Your task to perform on an android device: open app "NewsBreak: Local News & Alerts" (install if not already installed) Image 0: 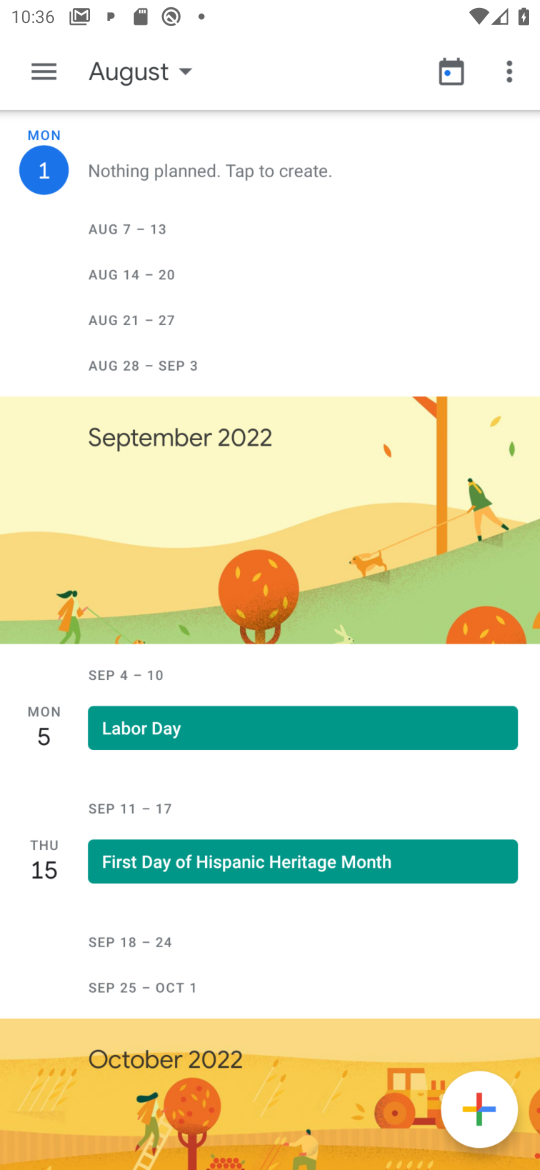
Step 0: press home button
Your task to perform on an android device: open app "NewsBreak: Local News & Alerts" (install if not already installed) Image 1: 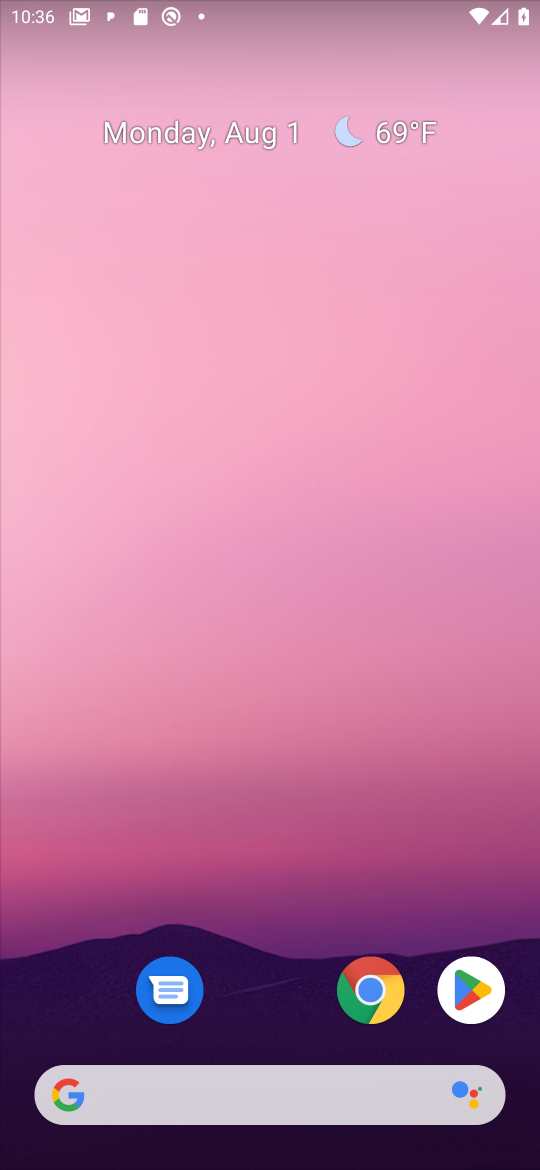
Step 1: click (455, 982)
Your task to perform on an android device: open app "NewsBreak: Local News & Alerts" (install if not already installed) Image 2: 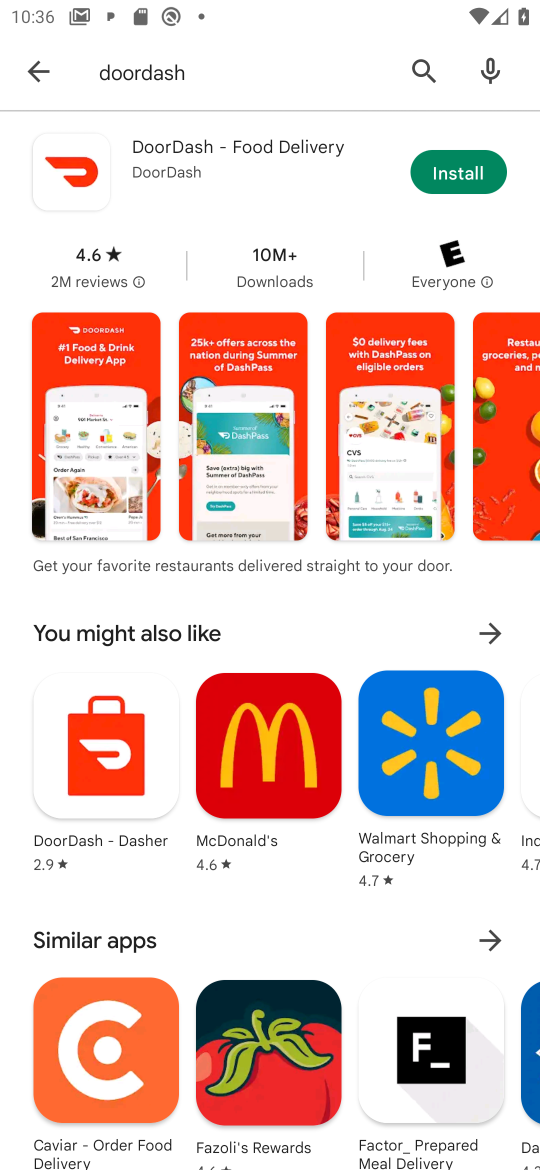
Step 2: click (439, 71)
Your task to perform on an android device: open app "NewsBreak: Local News & Alerts" (install if not already installed) Image 3: 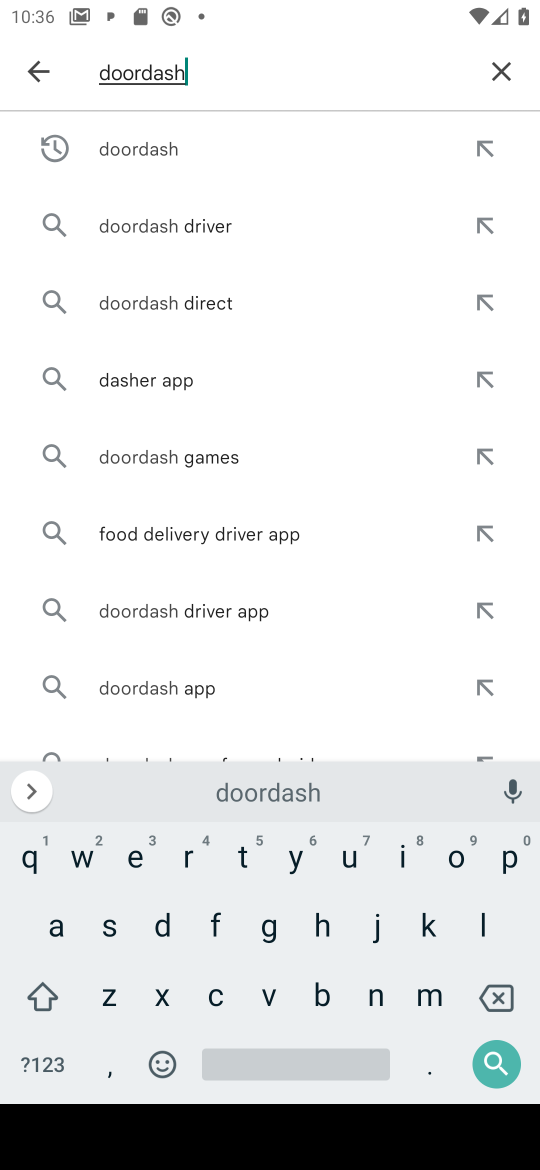
Step 3: click (500, 67)
Your task to perform on an android device: open app "NewsBreak: Local News & Alerts" (install if not already installed) Image 4: 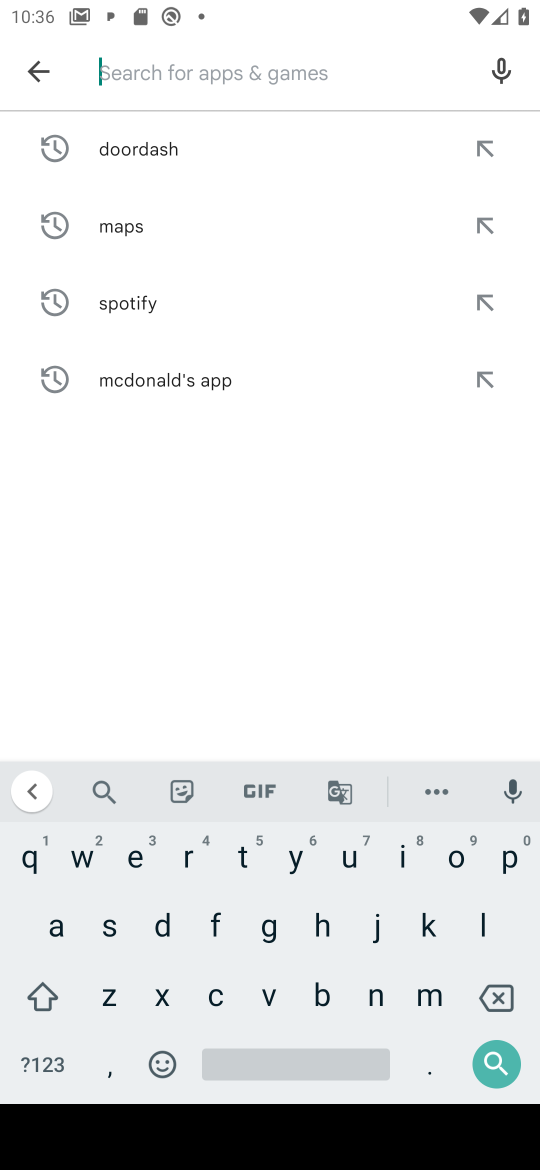
Step 4: click (375, 983)
Your task to perform on an android device: open app "NewsBreak: Local News & Alerts" (install if not already installed) Image 5: 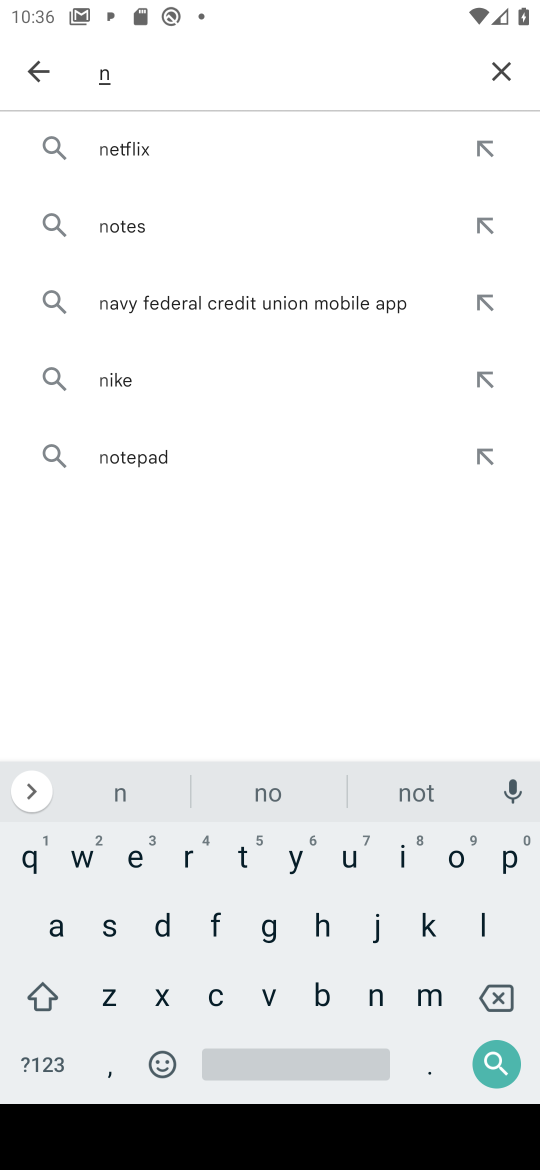
Step 5: click (129, 851)
Your task to perform on an android device: open app "NewsBreak: Local News & Alerts" (install if not already installed) Image 6: 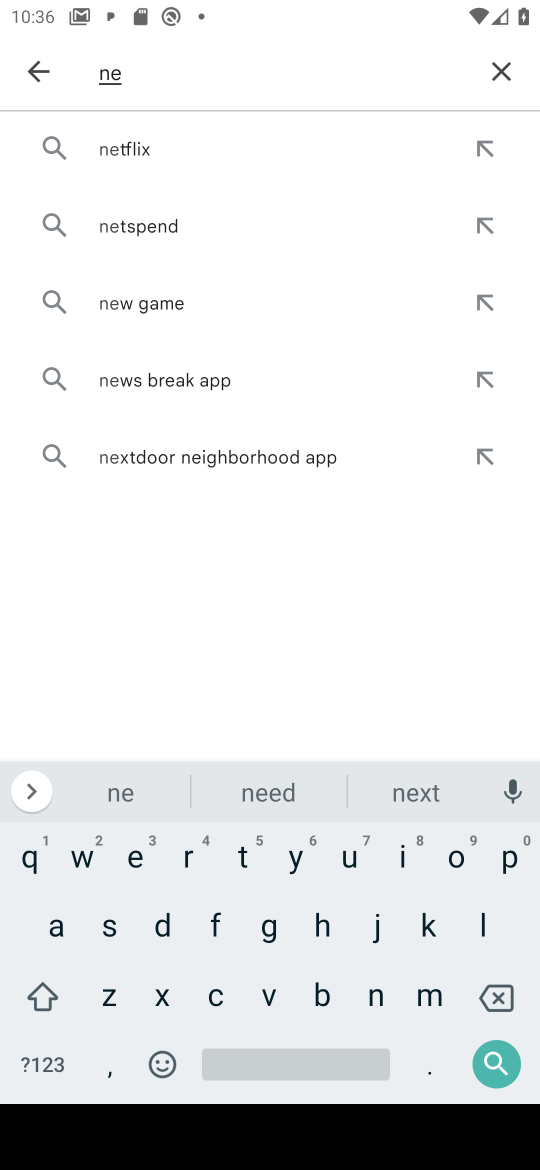
Step 6: click (80, 852)
Your task to perform on an android device: open app "NewsBreak: Local News & Alerts" (install if not already installed) Image 7: 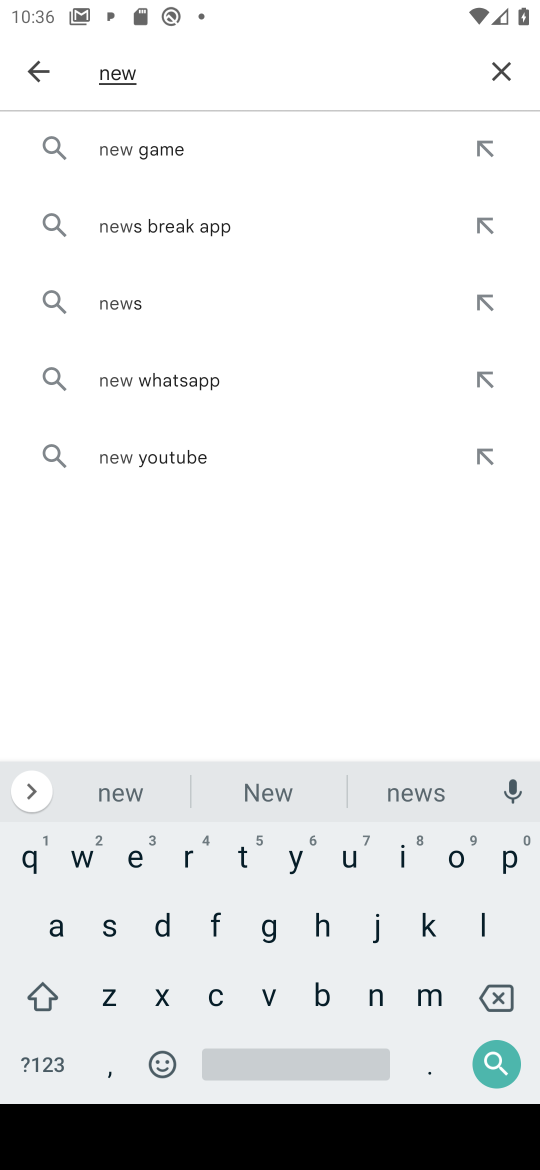
Step 7: click (117, 920)
Your task to perform on an android device: open app "NewsBreak: Local News & Alerts" (install if not already installed) Image 8: 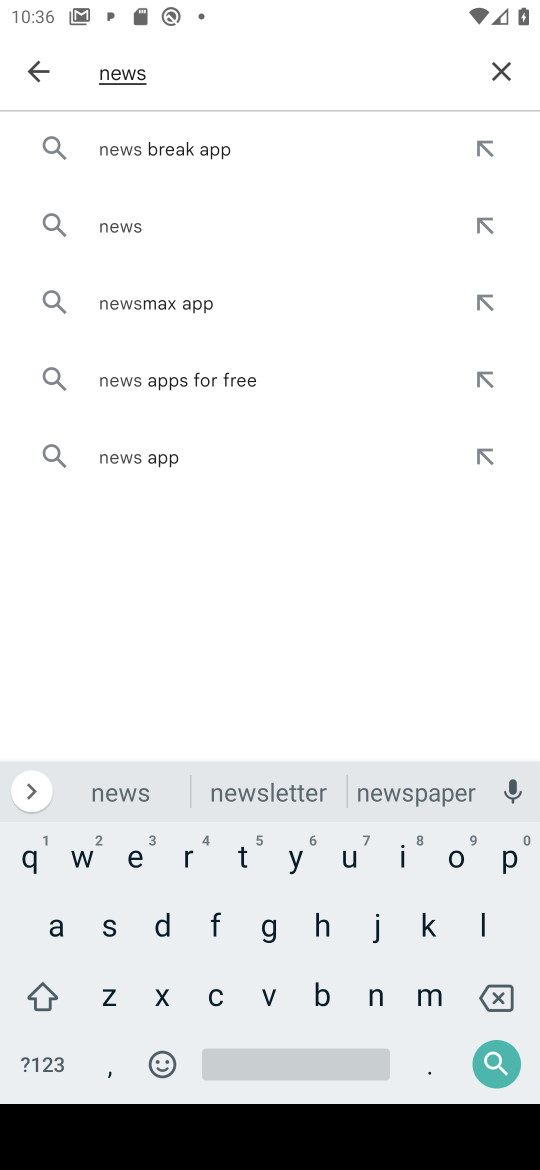
Step 8: click (207, 149)
Your task to perform on an android device: open app "NewsBreak: Local News & Alerts" (install if not already installed) Image 9: 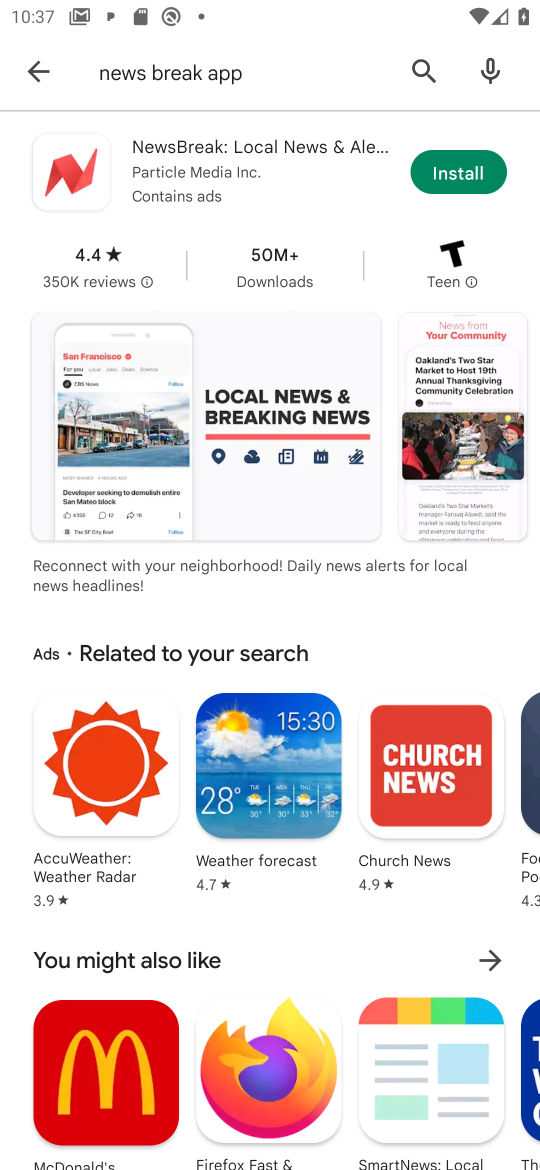
Step 9: click (459, 174)
Your task to perform on an android device: open app "NewsBreak: Local News & Alerts" (install if not already installed) Image 10: 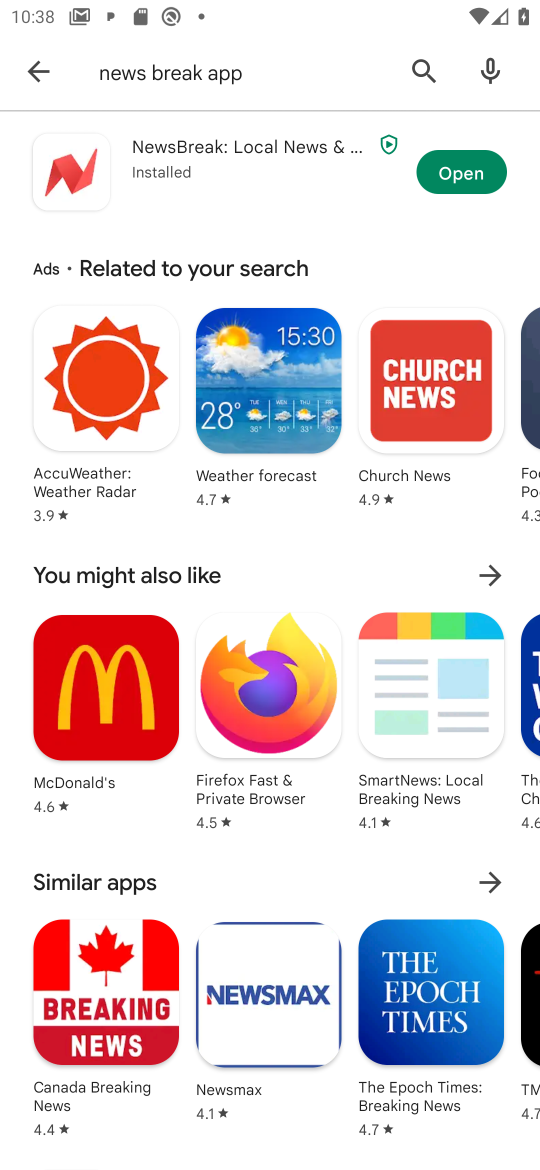
Step 10: click (452, 177)
Your task to perform on an android device: open app "NewsBreak: Local News & Alerts" (install if not already installed) Image 11: 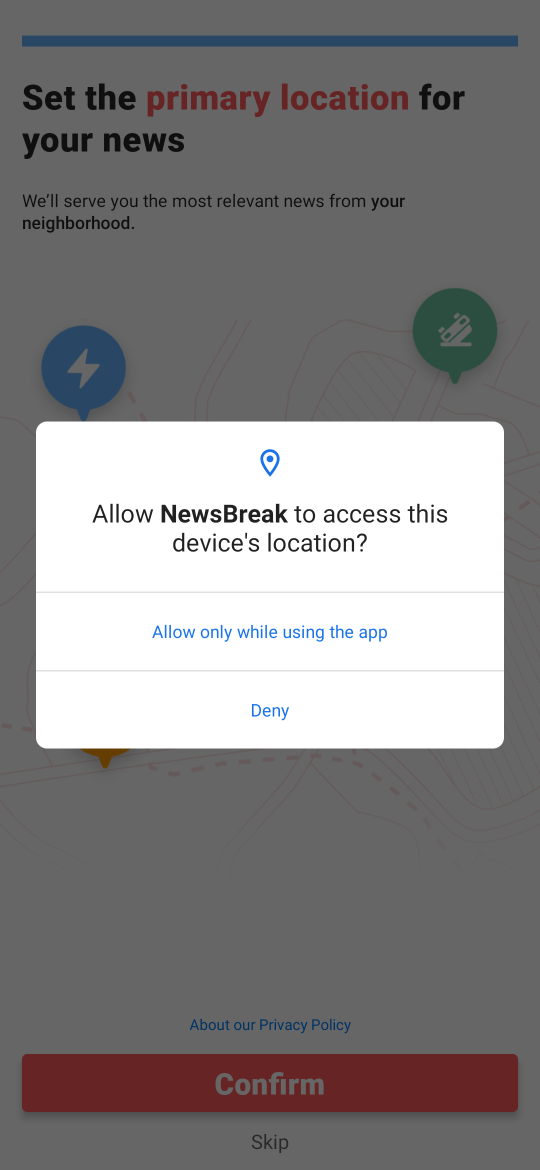
Step 11: click (246, 614)
Your task to perform on an android device: open app "NewsBreak: Local News & Alerts" (install if not already installed) Image 12: 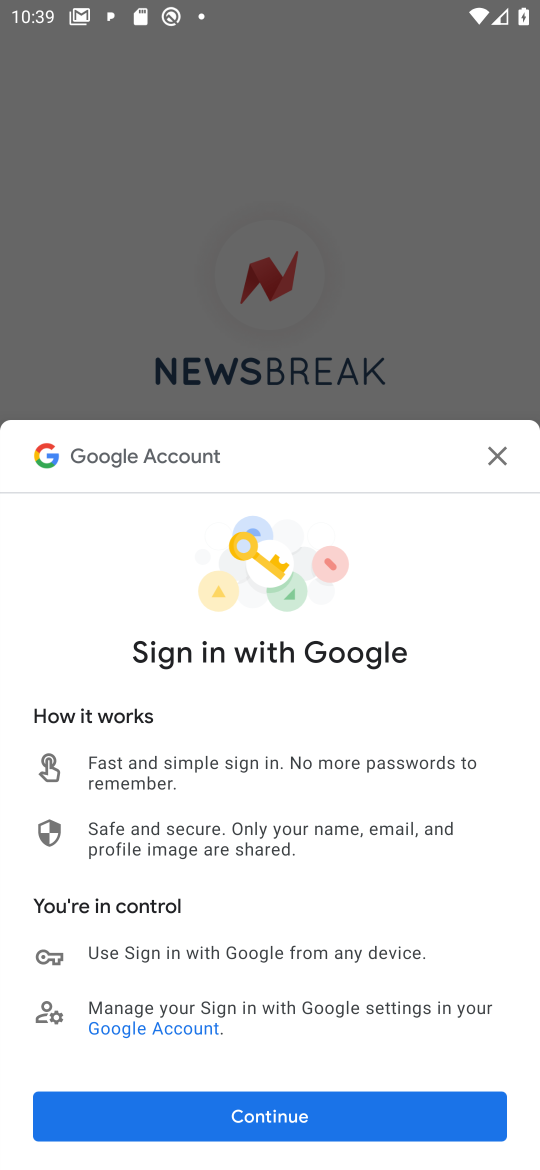
Step 12: click (497, 467)
Your task to perform on an android device: open app "NewsBreak: Local News & Alerts" (install if not already installed) Image 13: 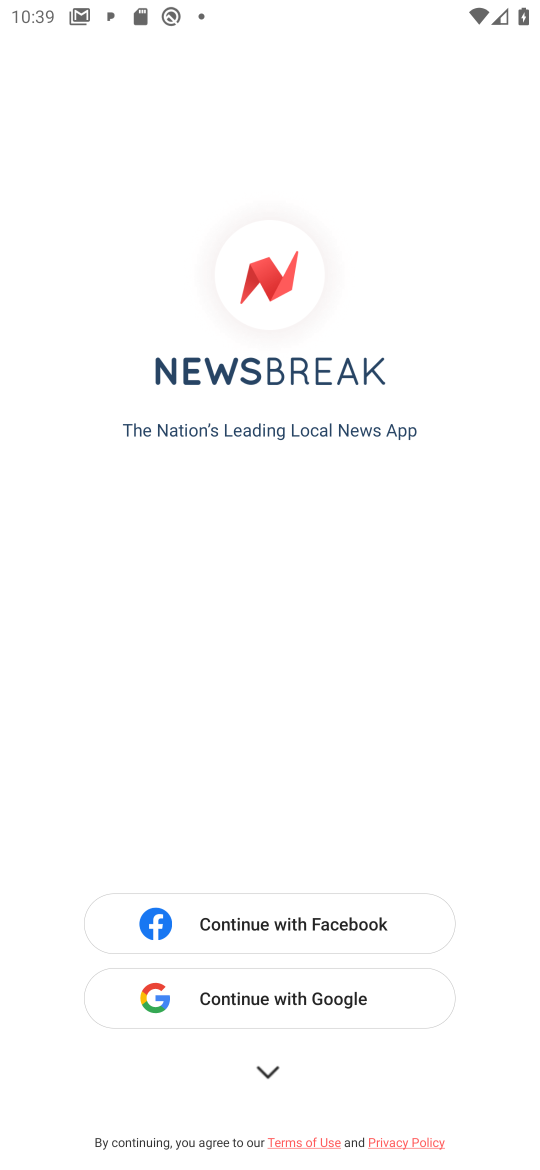
Step 13: task complete